Your task to perform on an android device: Go to Yahoo.com Image 0: 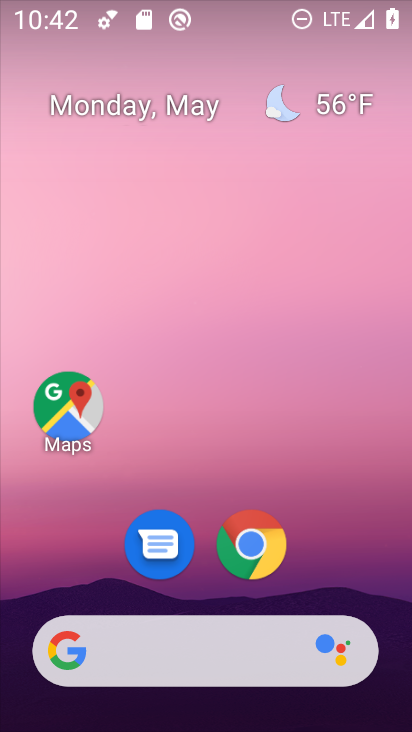
Step 0: click (252, 544)
Your task to perform on an android device: Go to Yahoo.com Image 1: 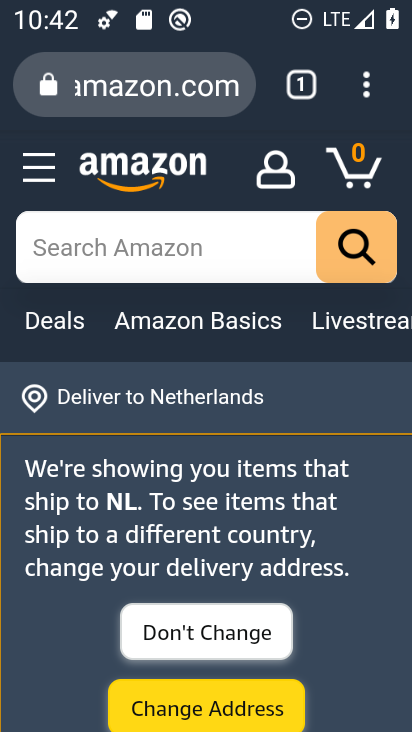
Step 1: click (224, 90)
Your task to perform on an android device: Go to Yahoo.com Image 2: 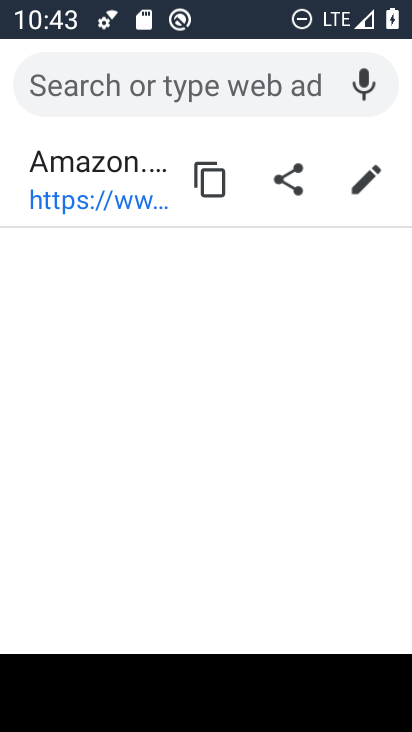
Step 2: type "Yahoo.com"
Your task to perform on an android device: Go to Yahoo.com Image 3: 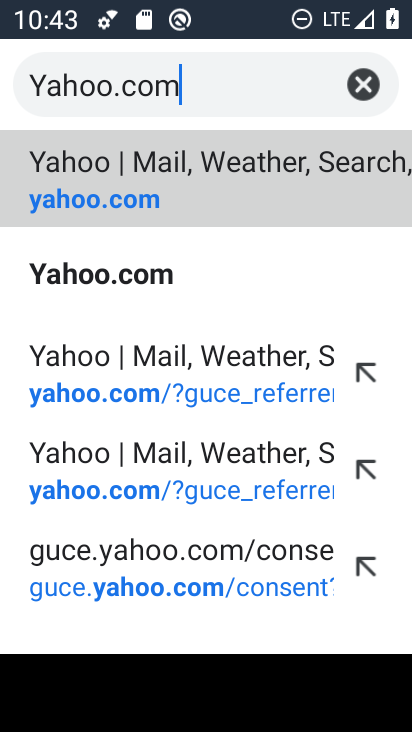
Step 3: type ""
Your task to perform on an android device: Go to Yahoo.com Image 4: 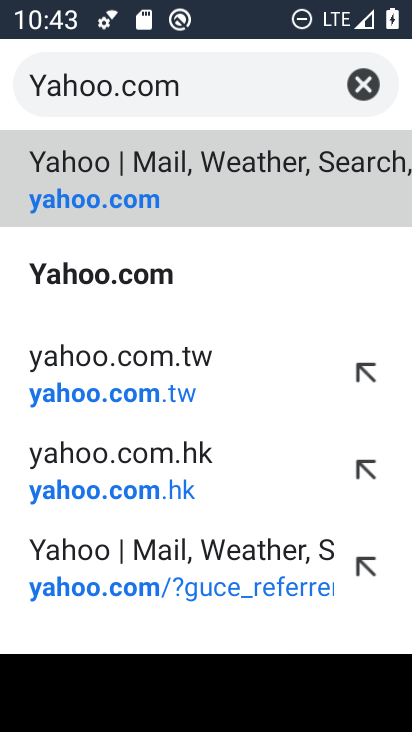
Step 4: click (130, 275)
Your task to perform on an android device: Go to Yahoo.com Image 5: 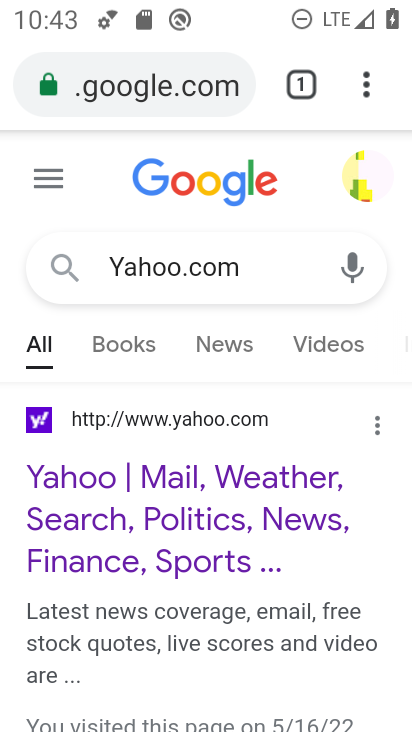
Step 5: click (163, 484)
Your task to perform on an android device: Go to Yahoo.com Image 6: 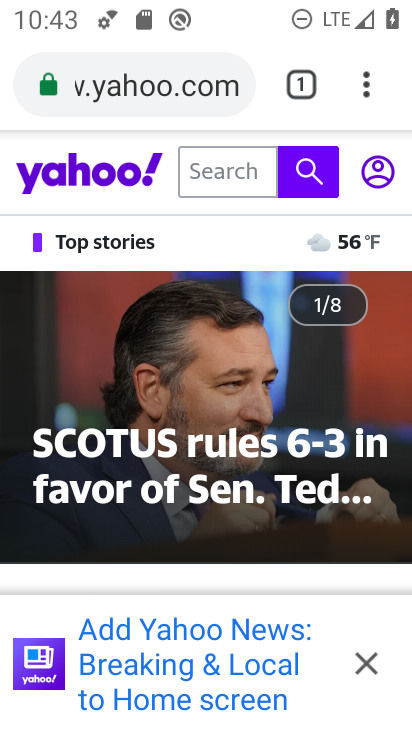
Step 6: task complete